Your task to perform on an android device: Open Yahoo.com Image 0: 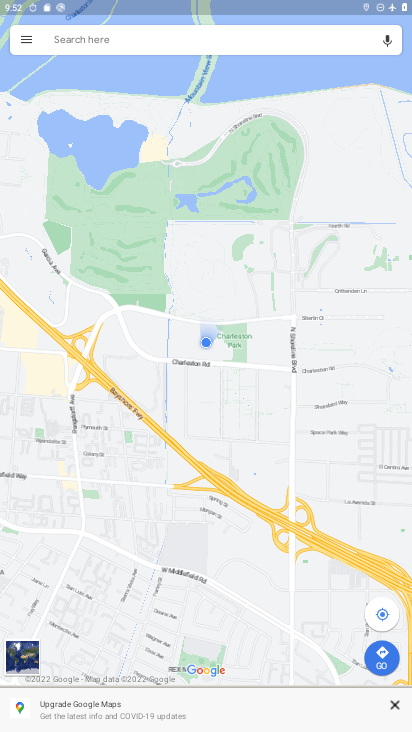
Step 0: press home button
Your task to perform on an android device: Open Yahoo.com Image 1: 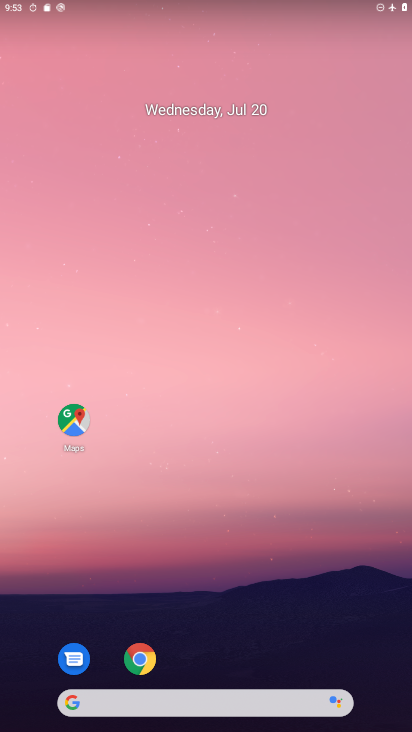
Step 1: drag from (283, 668) to (292, 98)
Your task to perform on an android device: Open Yahoo.com Image 2: 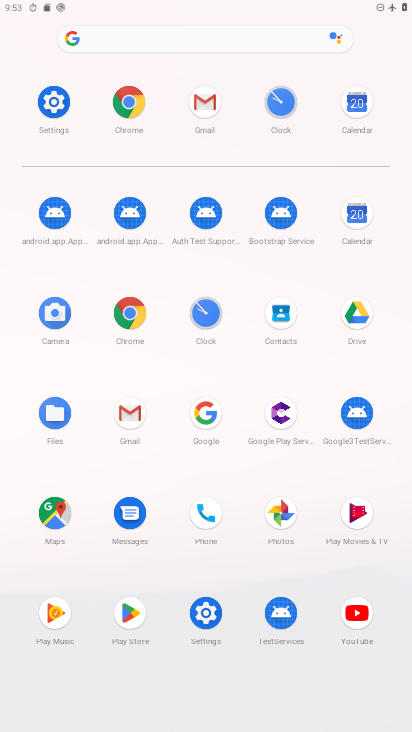
Step 2: click (137, 102)
Your task to perform on an android device: Open Yahoo.com Image 3: 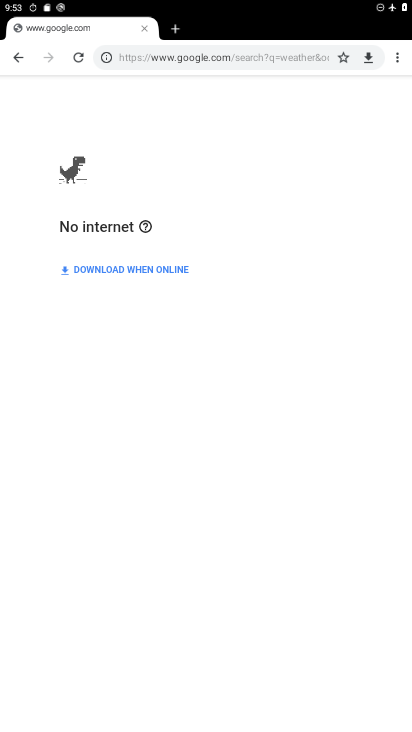
Step 3: click (238, 37)
Your task to perform on an android device: Open Yahoo.com Image 4: 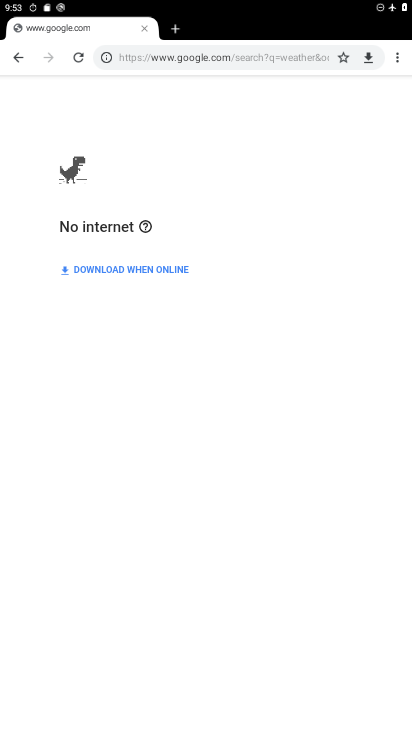
Step 4: click (239, 44)
Your task to perform on an android device: Open Yahoo.com Image 5: 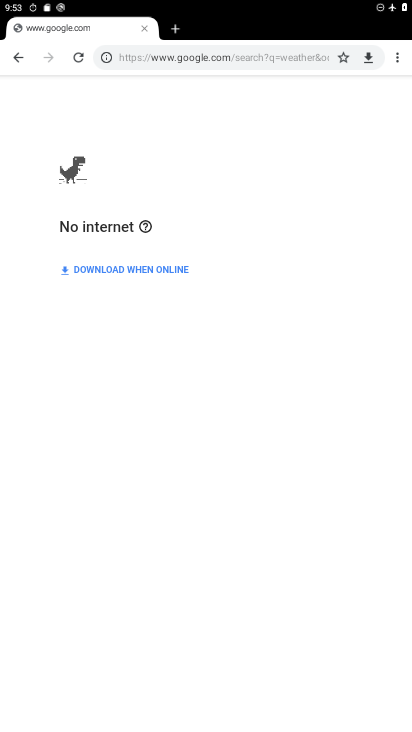
Step 5: click (271, 47)
Your task to perform on an android device: Open Yahoo.com Image 6: 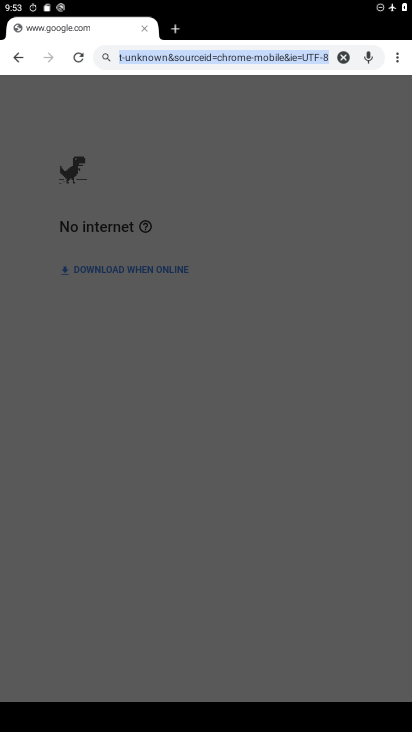
Step 6: type "yahoo.com"
Your task to perform on an android device: Open Yahoo.com Image 7: 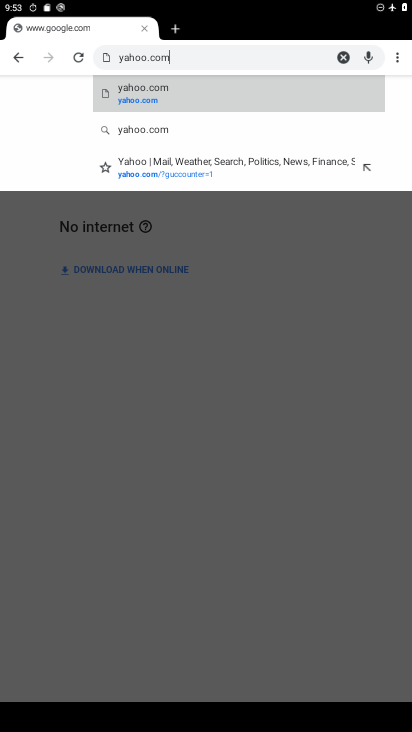
Step 7: click (233, 87)
Your task to perform on an android device: Open Yahoo.com Image 8: 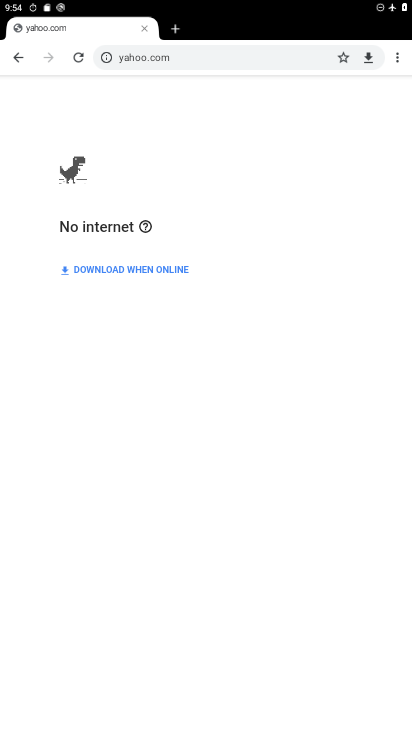
Step 8: task complete